Your task to perform on an android device: visit the assistant section in the google photos Image 0: 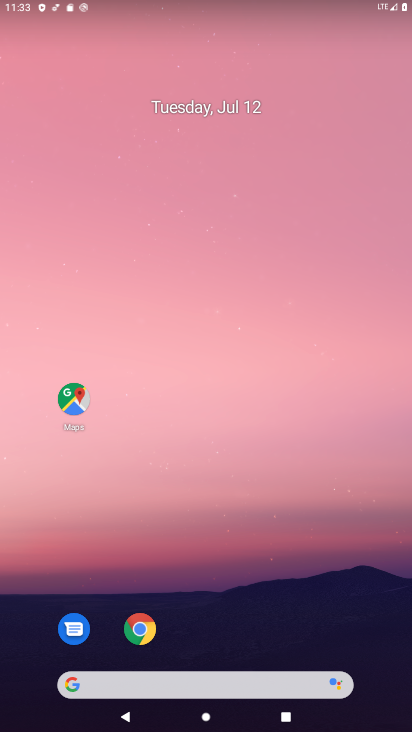
Step 0: drag from (166, 667) to (252, 73)
Your task to perform on an android device: visit the assistant section in the google photos Image 1: 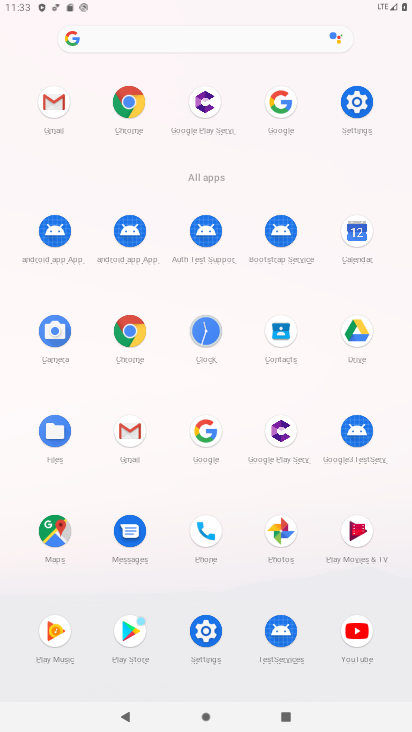
Step 1: click (278, 538)
Your task to perform on an android device: visit the assistant section in the google photos Image 2: 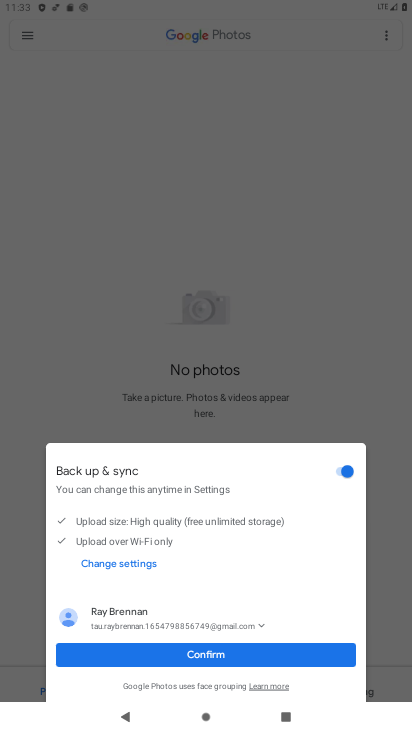
Step 2: click (213, 646)
Your task to perform on an android device: visit the assistant section in the google photos Image 3: 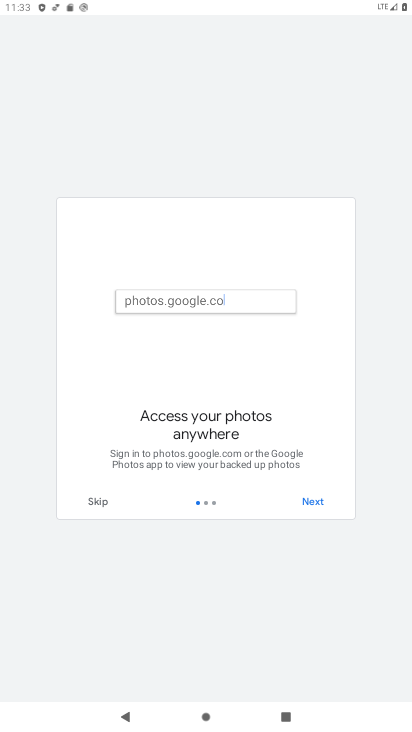
Step 3: click (309, 498)
Your task to perform on an android device: visit the assistant section in the google photos Image 4: 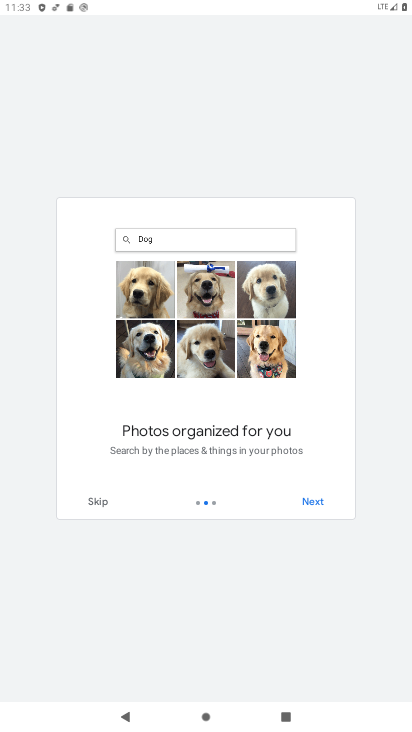
Step 4: click (318, 502)
Your task to perform on an android device: visit the assistant section in the google photos Image 5: 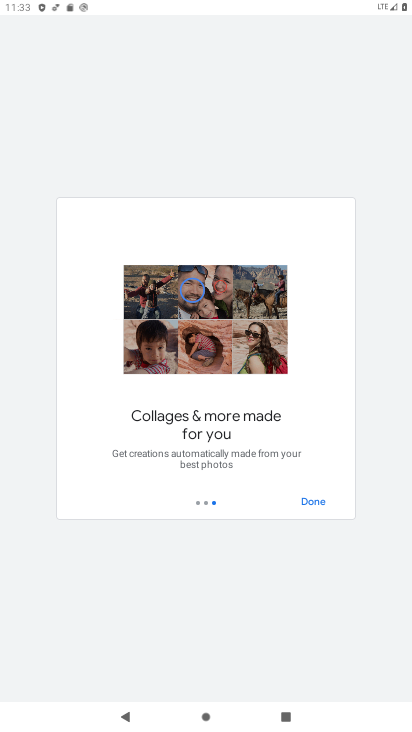
Step 5: click (315, 503)
Your task to perform on an android device: visit the assistant section in the google photos Image 6: 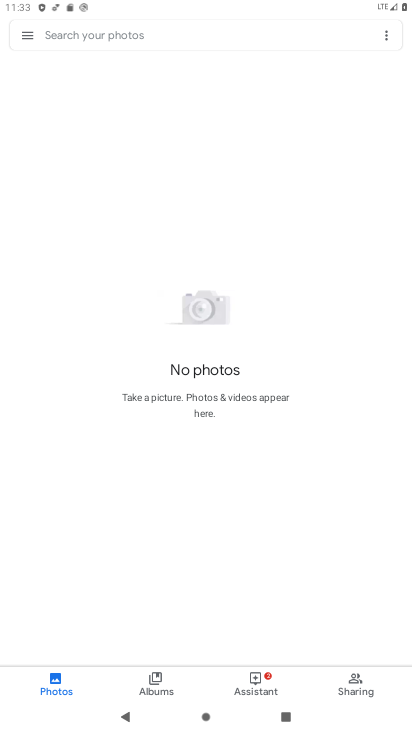
Step 6: click (264, 683)
Your task to perform on an android device: visit the assistant section in the google photos Image 7: 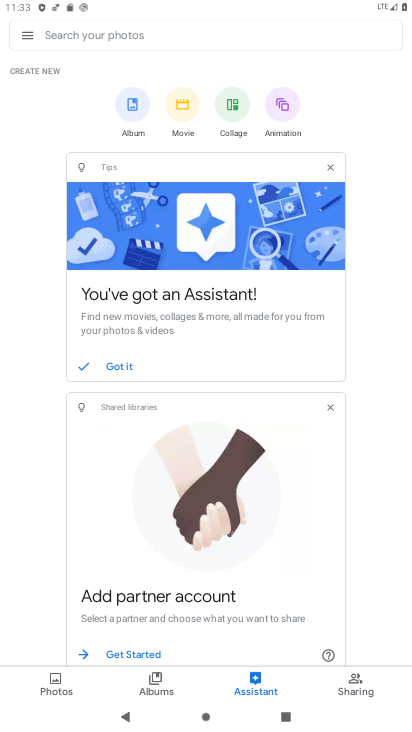
Step 7: task complete